Your task to perform on an android device: toggle translation in the chrome app Image 0: 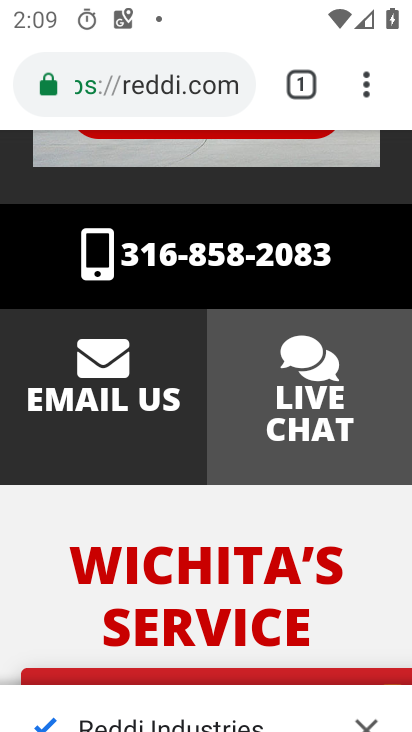
Step 0: press home button
Your task to perform on an android device: toggle translation in the chrome app Image 1: 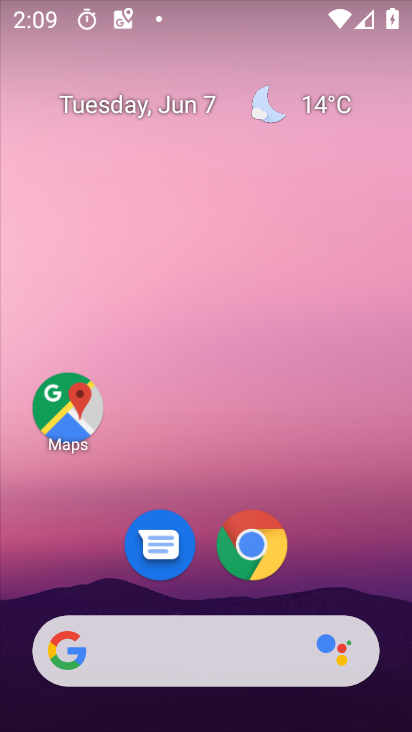
Step 1: click (260, 553)
Your task to perform on an android device: toggle translation in the chrome app Image 2: 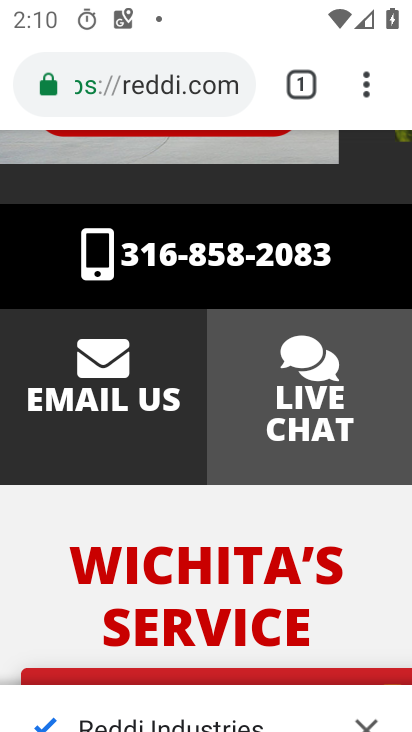
Step 2: click (352, 77)
Your task to perform on an android device: toggle translation in the chrome app Image 3: 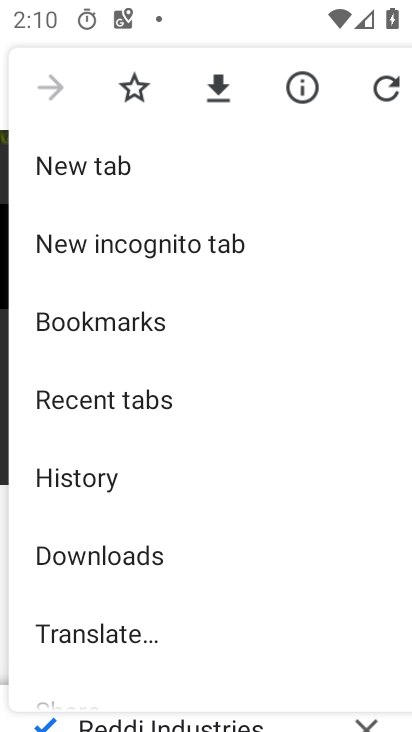
Step 3: drag from (249, 537) to (292, 49)
Your task to perform on an android device: toggle translation in the chrome app Image 4: 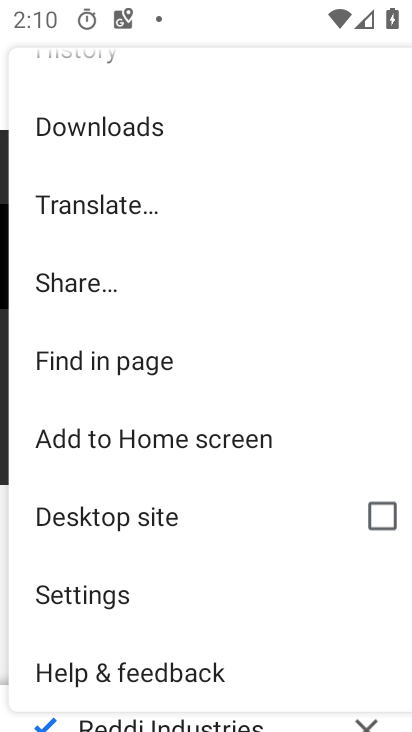
Step 4: click (199, 600)
Your task to perform on an android device: toggle translation in the chrome app Image 5: 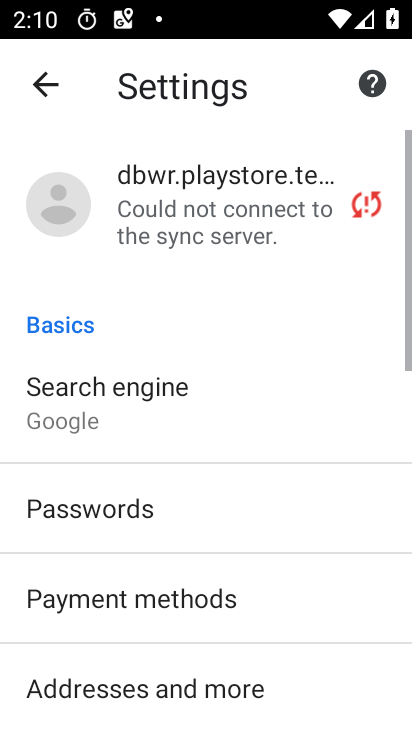
Step 5: drag from (242, 591) to (263, 62)
Your task to perform on an android device: toggle translation in the chrome app Image 6: 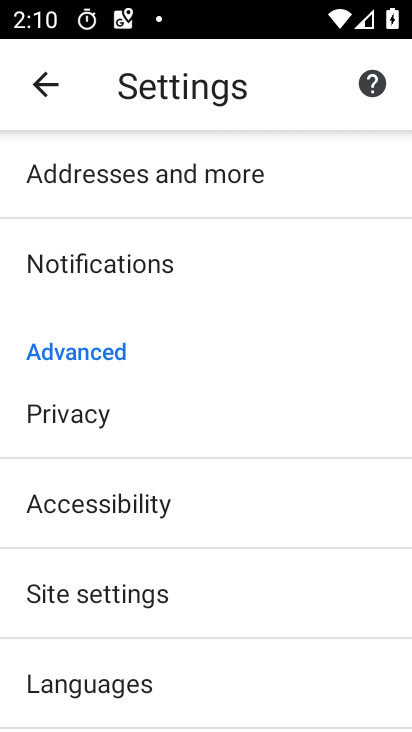
Step 6: click (242, 604)
Your task to perform on an android device: toggle translation in the chrome app Image 7: 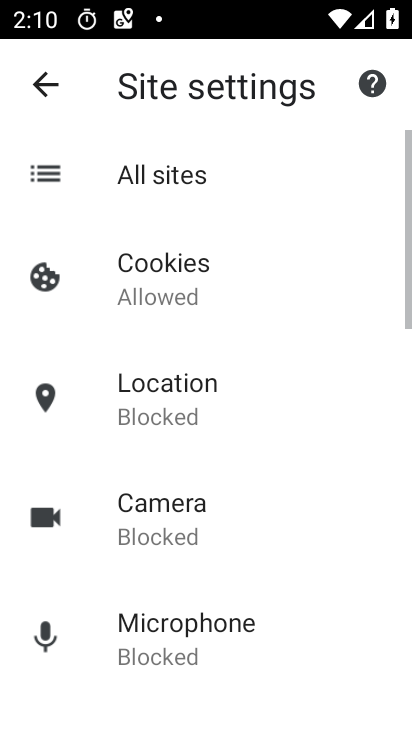
Step 7: click (35, 80)
Your task to perform on an android device: toggle translation in the chrome app Image 8: 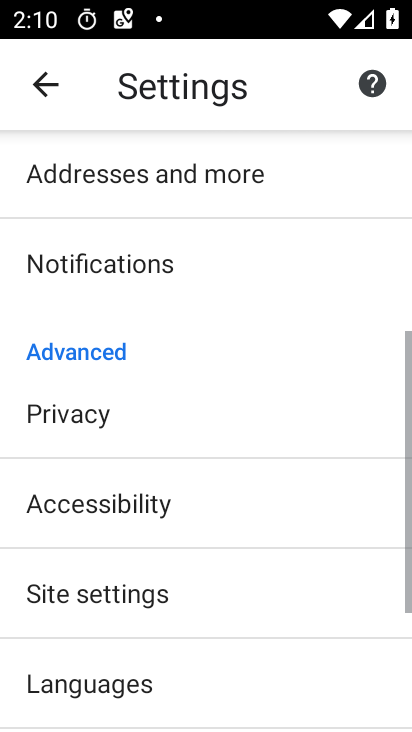
Step 8: click (146, 682)
Your task to perform on an android device: toggle translation in the chrome app Image 9: 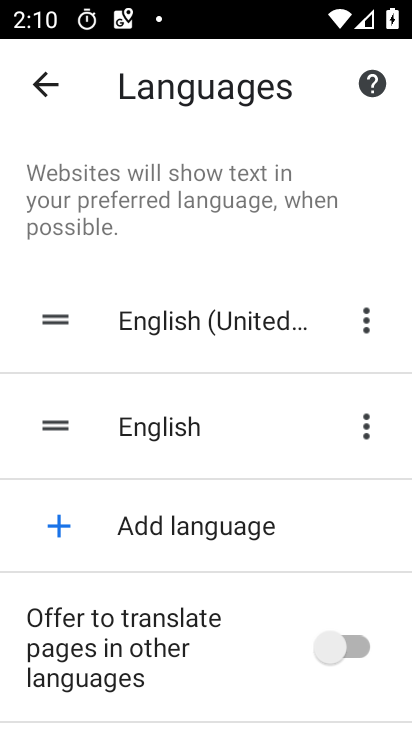
Step 9: click (329, 633)
Your task to perform on an android device: toggle translation in the chrome app Image 10: 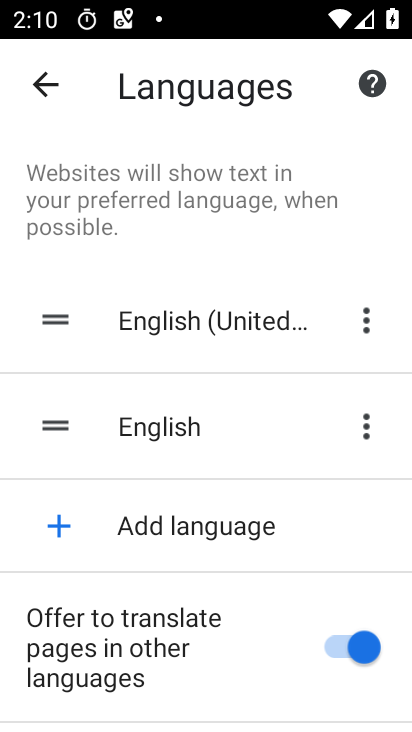
Step 10: task complete